Your task to perform on an android device: turn on the 12-hour format for clock Image 0: 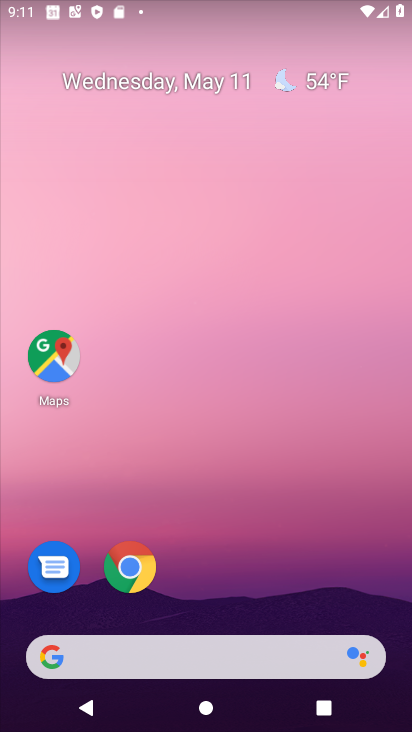
Step 0: drag from (227, 620) to (294, 0)
Your task to perform on an android device: turn on the 12-hour format for clock Image 1: 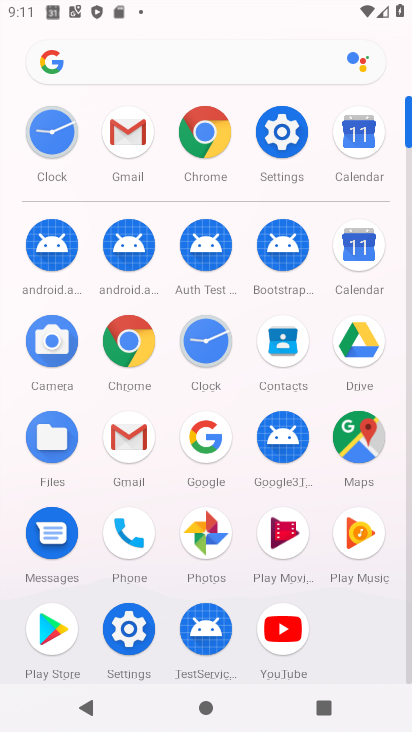
Step 1: click (133, 645)
Your task to perform on an android device: turn on the 12-hour format for clock Image 2: 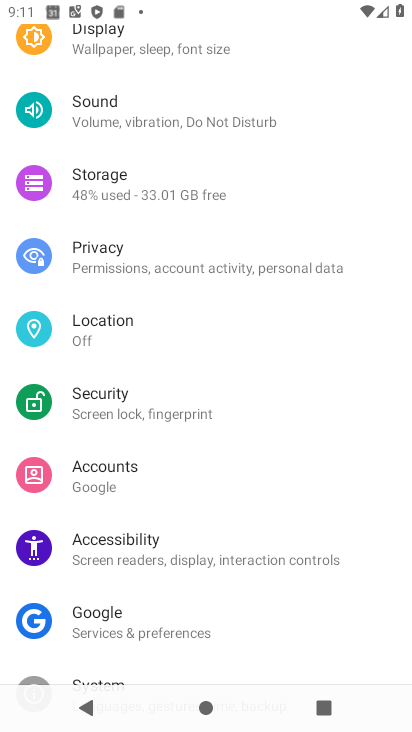
Step 2: drag from (166, 271) to (257, 9)
Your task to perform on an android device: turn on the 12-hour format for clock Image 3: 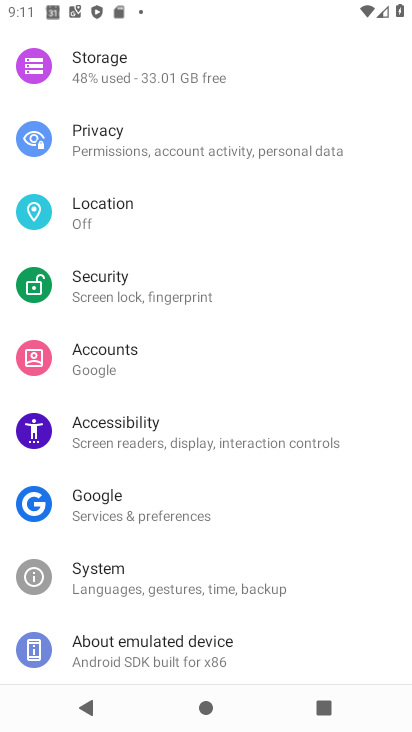
Step 3: click (126, 588)
Your task to perform on an android device: turn on the 12-hour format for clock Image 4: 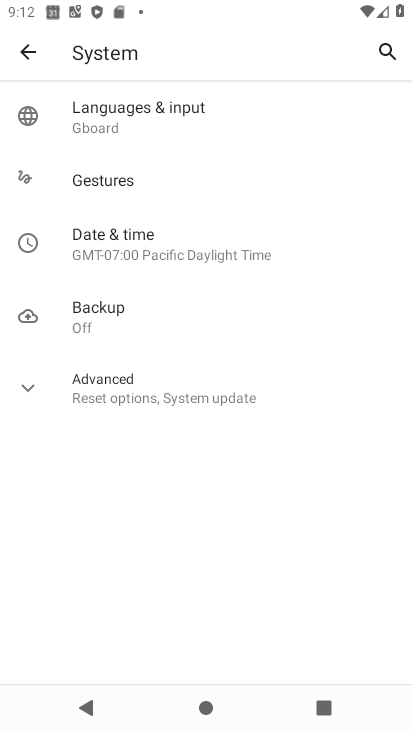
Step 4: click (118, 243)
Your task to perform on an android device: turn on the 12-hour format for clock Image 5: 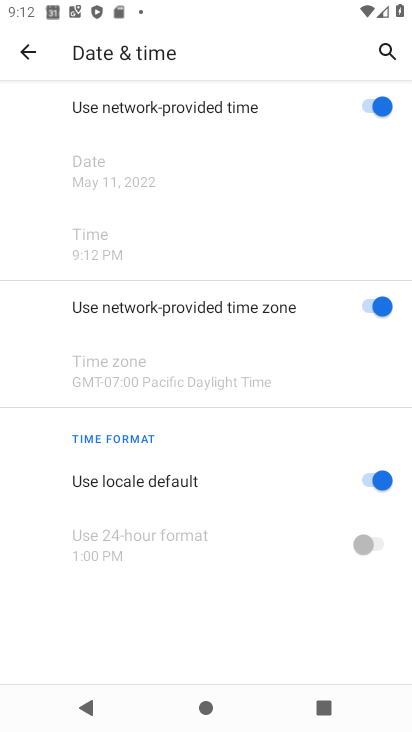
Step 5: task complete